Your task to perform on an android device: open app "ZOOM Cloud Meetings" Image 0: 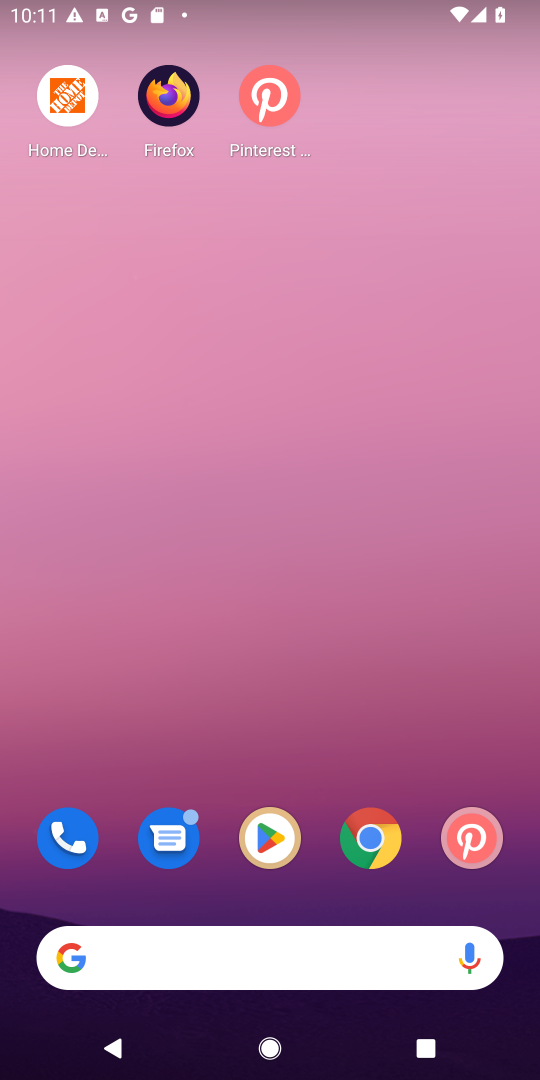
Step 0: click (289, 831)
Your task to perform on an android device: open app "ZOOM Cloud Meetings" Image 1: 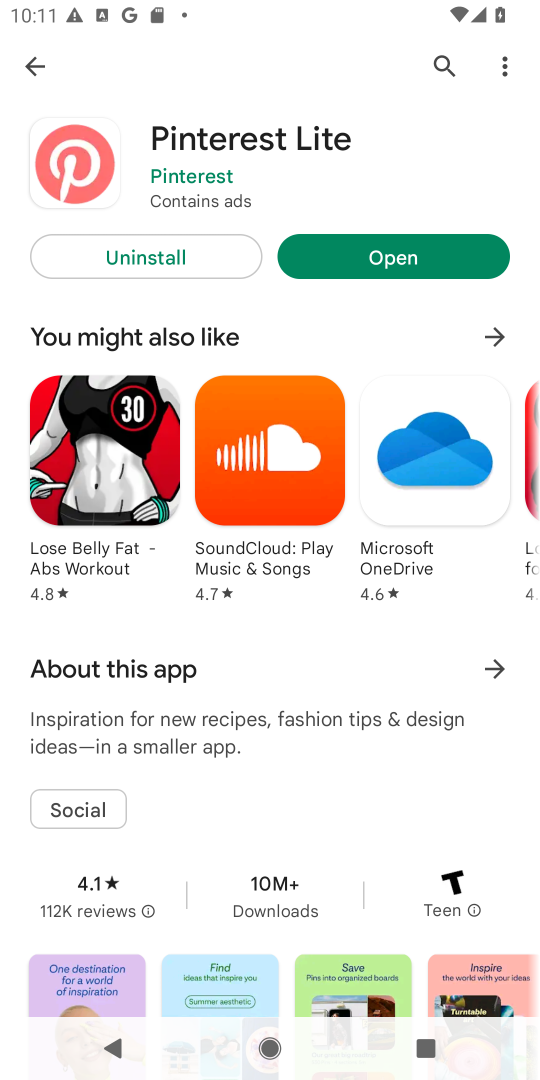
Step 1: click (439, 66)
Your task to perform on an android device: open app "ZOOM Cloud Meetings" Image 2: 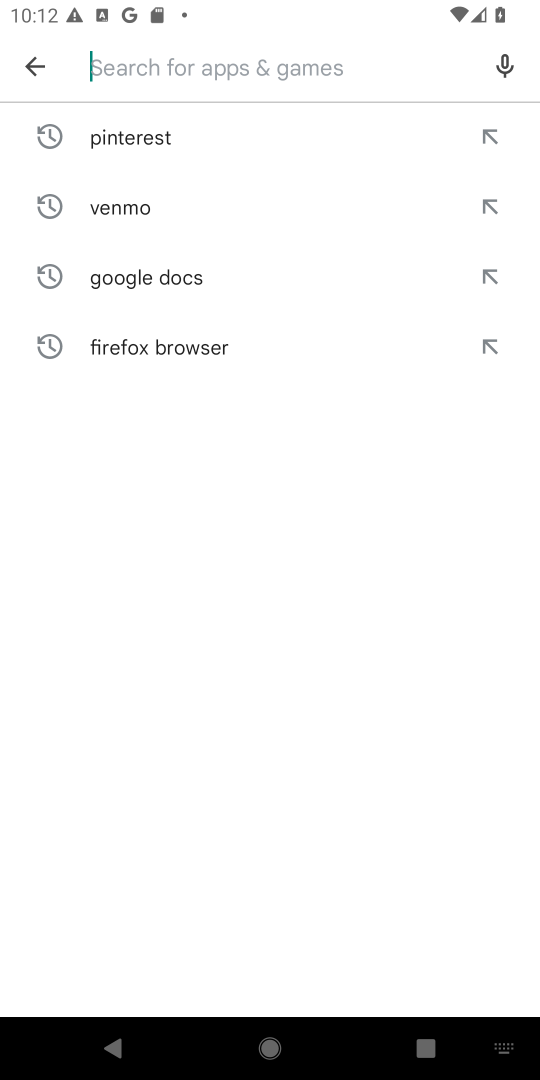
Step 2: type "ZOOM Cloud Meetings"
Your task to perform on an android device: open app "ZOOM Cloud Meetings" Image 3: 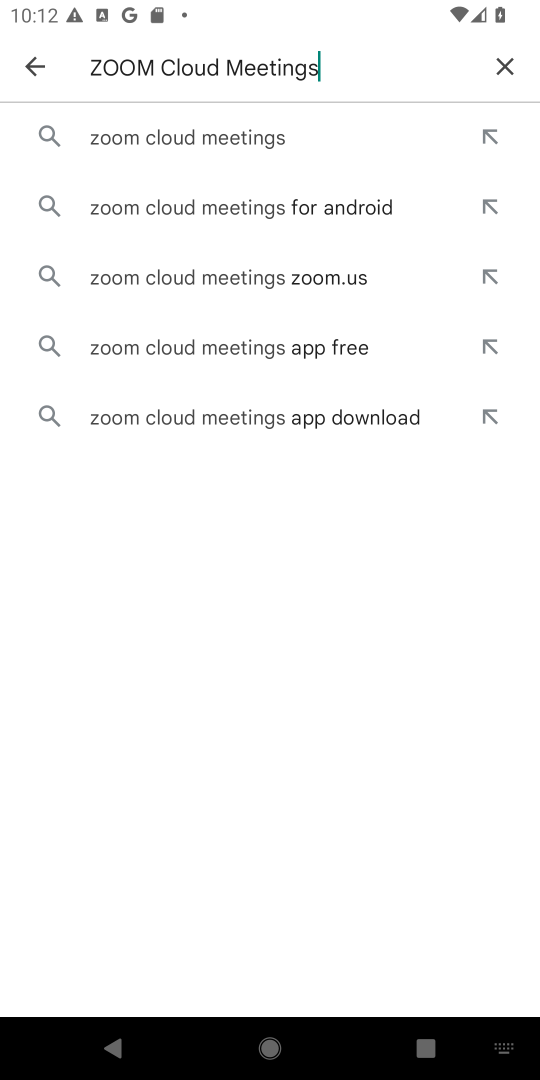
Step 3: click (187, 139)
Your task to perform on an android device: open app "ZOOM Cloud Meetings" Image 4: 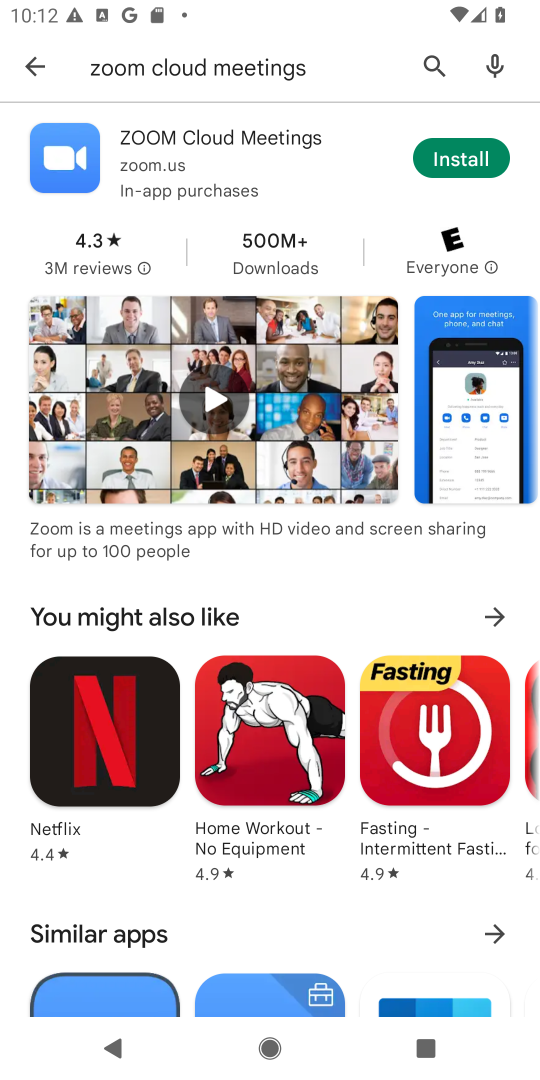
Step 4: task complete